Your task to perform on an android device: Turn on the flashlight Image 0: 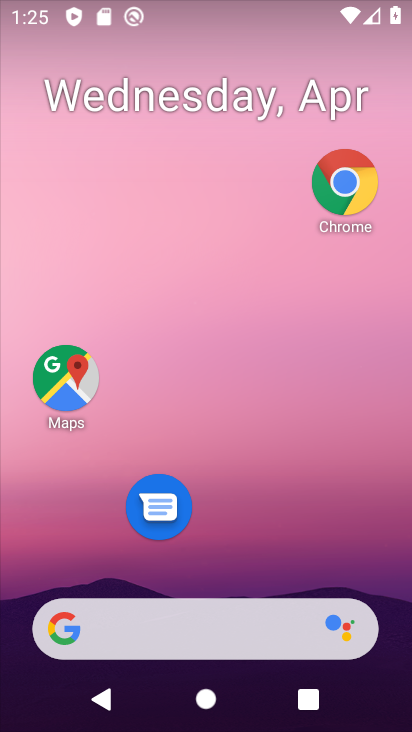
Step 0: drag from (291, 132) to (329, 533)
Your task to perform on an android device: Turn on the flashlight Image 1: 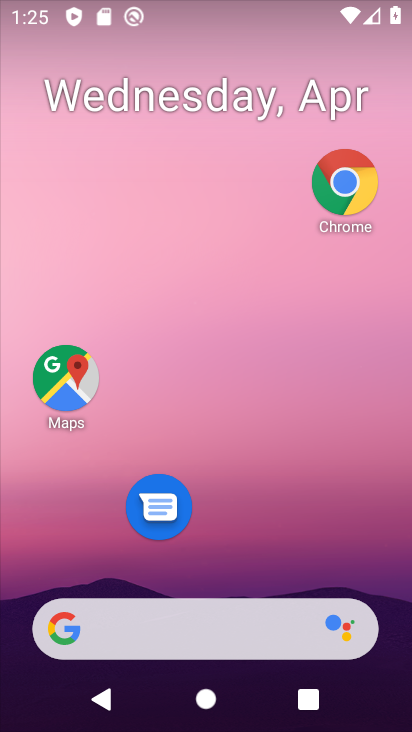
Step 1: task complete